Your task to perform on an android device: turn off javascript in the chrome app Image 0: 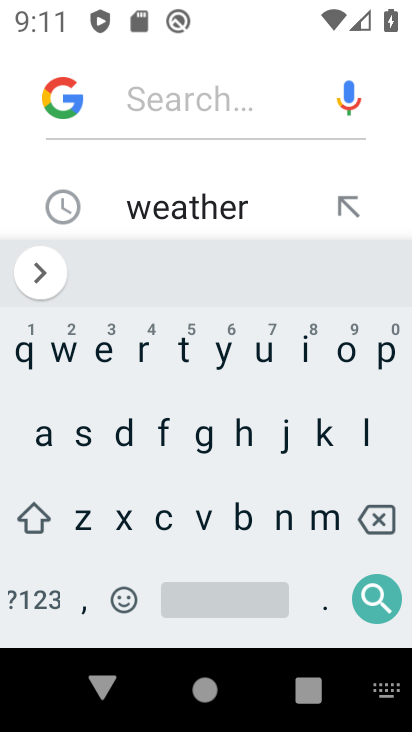
Step 0: press back button
Your task to perform on an android device: turn off javascript in the chrome app Image 1: 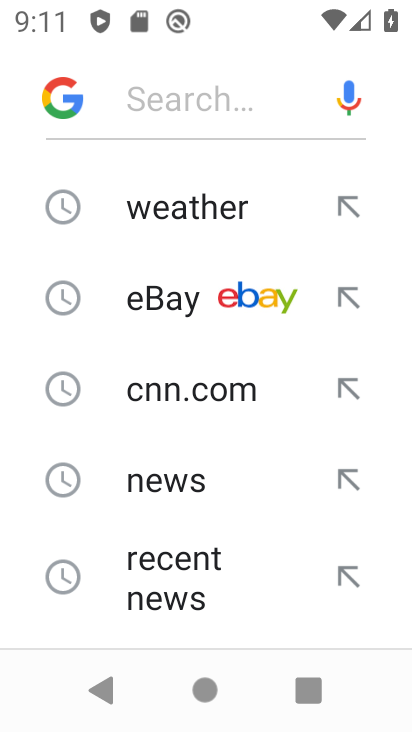
Step 1: press back button
Your task to perform on an android device: turn off javascript in the chrome app Image 2: 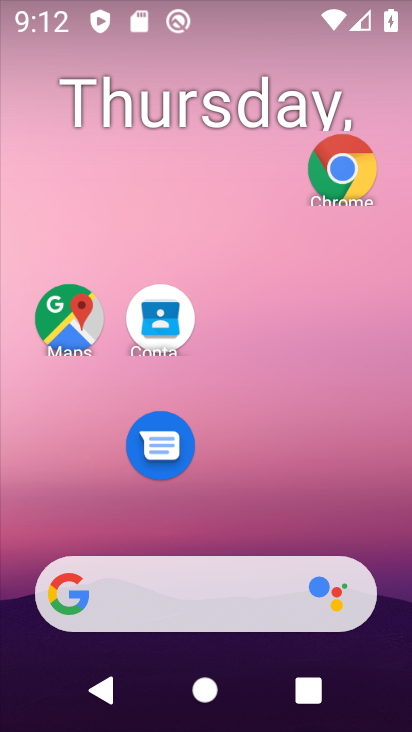
Step 2: drag from (305, 639) to (223, 245)
Your task to perform on an android device: turn off javascript in the chrome app Image 3: 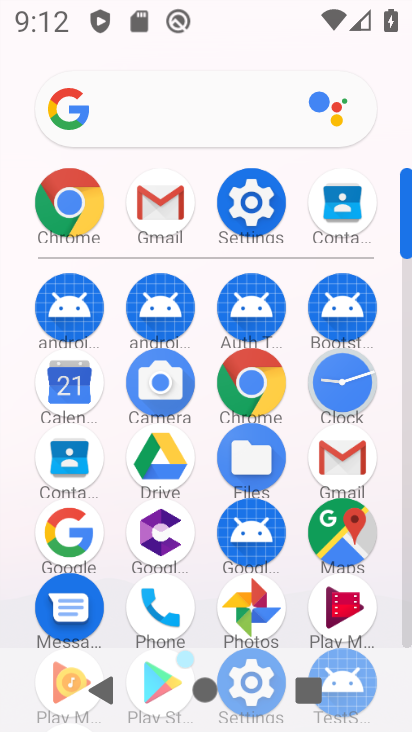
Step 3: click (60, 233)
Your task to perform on an android device: turn off javascript in the chrome app Image 4: 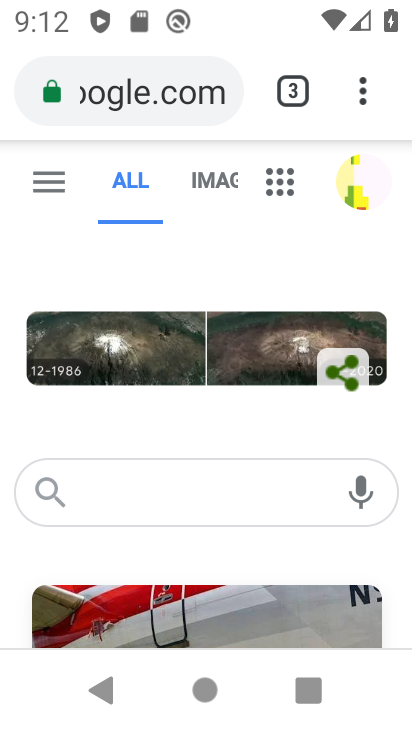
Step 4: click (359, 105)
Your task to perform on an android device: turn off javascript in the chrome app Image 5: 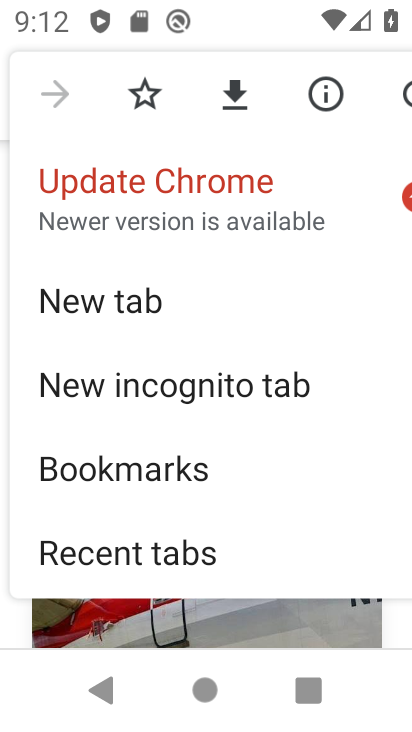
Step 5: drag from (83, 502) to (204, 107)
Your task to perform on an android device: turn off javascript in the chrome app Image 6: 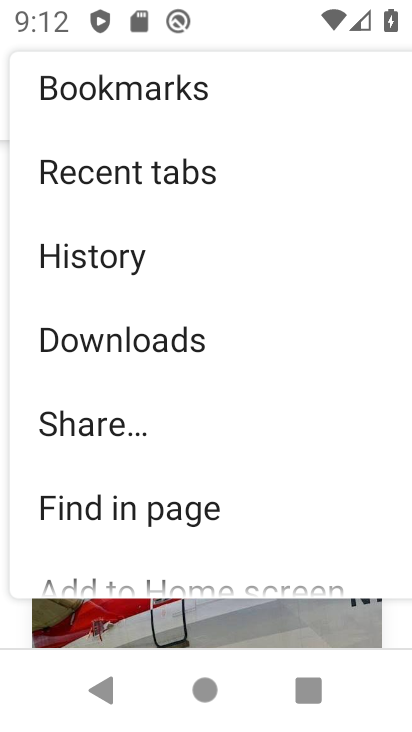
Step 6: drag from (200, 453) to (268, 192)
Your task to perform on an android device: turn off javascript in the chrome app Image 7: 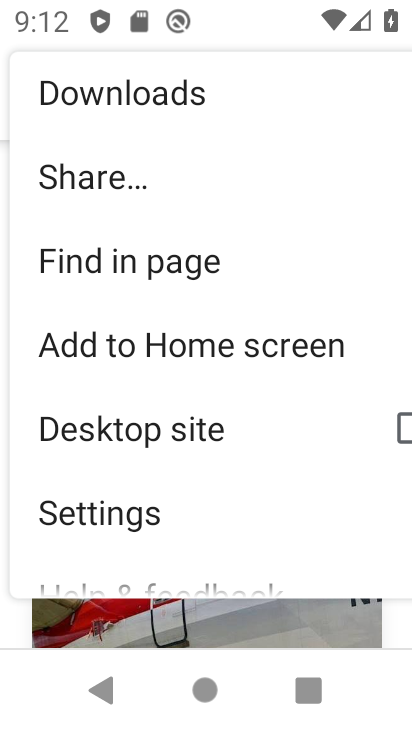
Step 7: click (153, 521)
Your task to perform on an android device: turn off javascript in the chrome app Image 8: 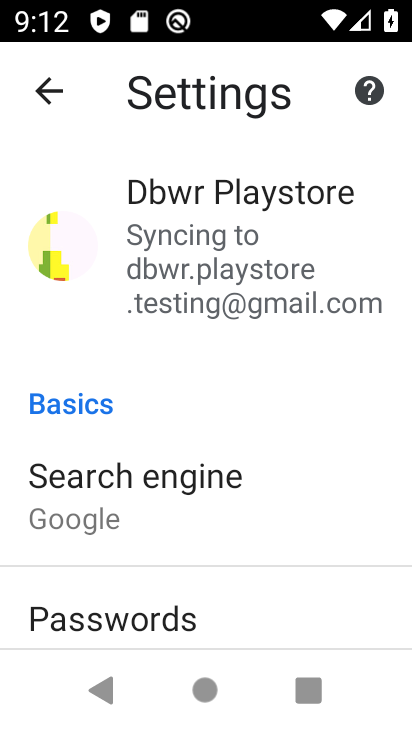
Step 8: drag from (163, 546) to (224, 201)
Your task to perform on an android device: turn off javascript in the chrome app Image 9: 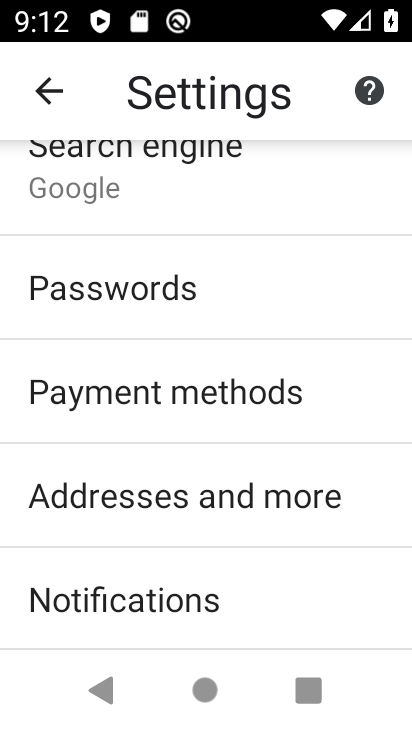
Step 9: drag from (144, 462) to (219, 129)
Your task to perform on an android device: turn off javascript in the chrome app Image 10: 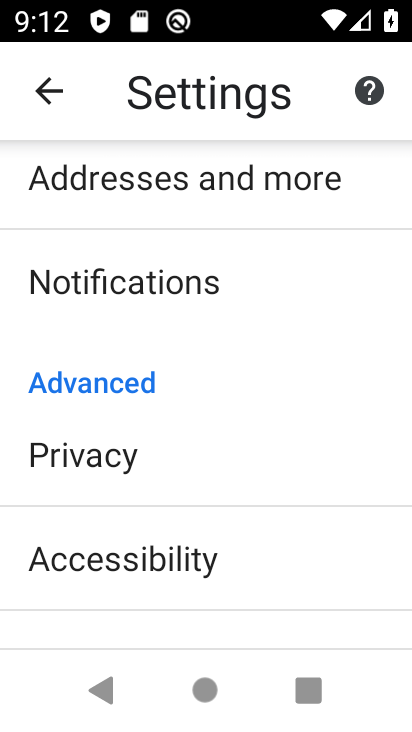
Step 10: drag from (194, 482) to (234, 217)
Your task to perform on an android device: turn off javascript in the chrome app Image 11: 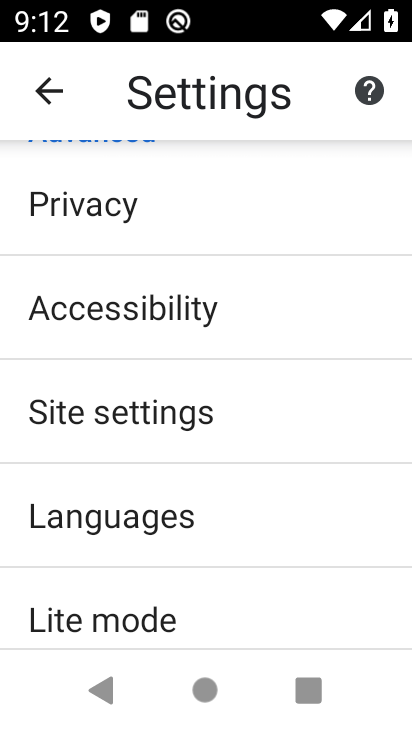
Step 11: click (121, 429)
Your task to perform on an android device: turn off javascript in the chrome app Image 12: 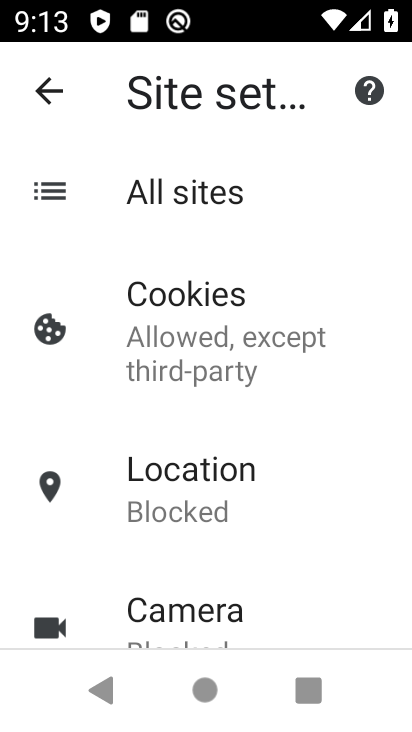
Step 12: drag from (163, 523) to (196, 281)
Your task to perform on an android device: turn off javascript in the chrome app Image 13: 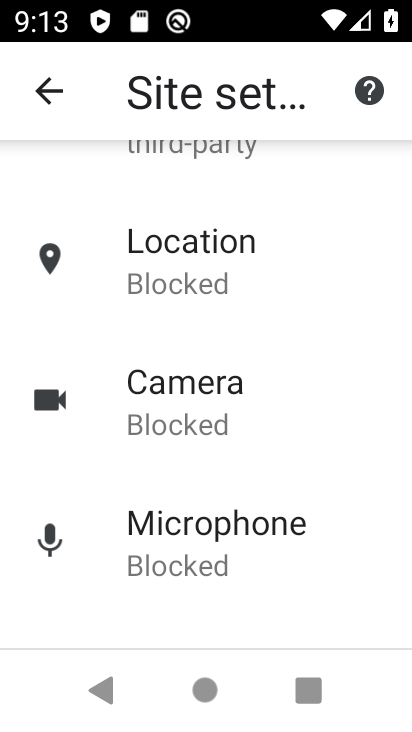
Step 13: drag from (207, 548) to (230, 177)
Your task to perform on an android device: turn off javascript in the chrome app Image 14: 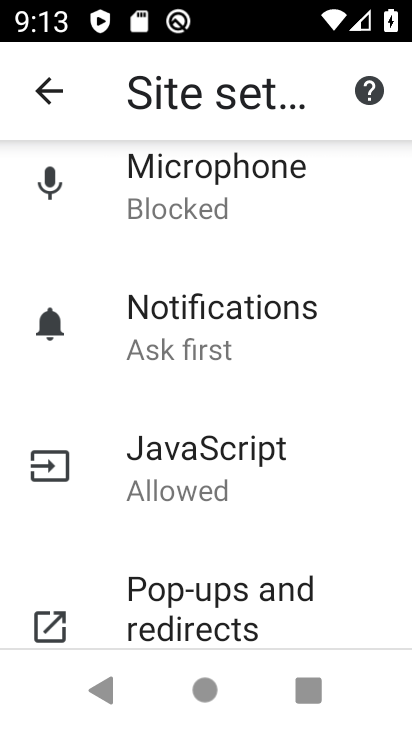
Step 14: click (205, 475)
Your task to perform on an android device: turn off javascript in the chrome app Image 15: 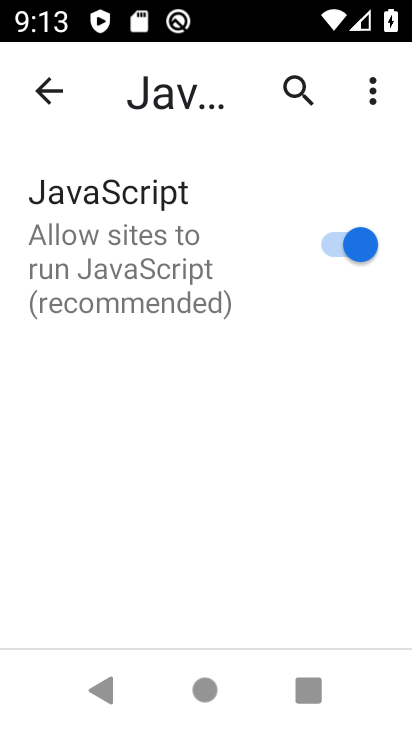
Step 15: click (331, 231)
Your task to perform on an android device: turn off javascript in the chrome app Image 16: 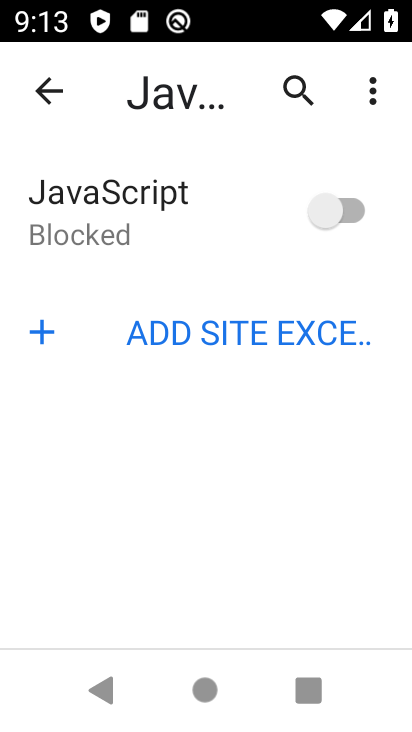
Step 16: task complete